Your task to perform on an android device: star an email in the gmail app Image 0: 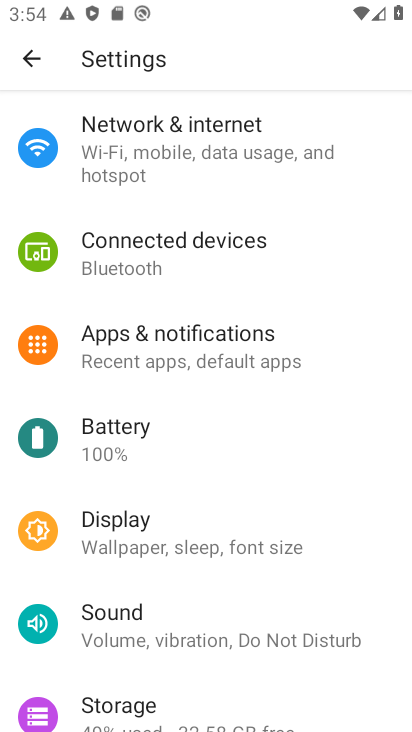
Step 0: press home button
Your task to perform on an android device: star an email in the gmail app Image 1: 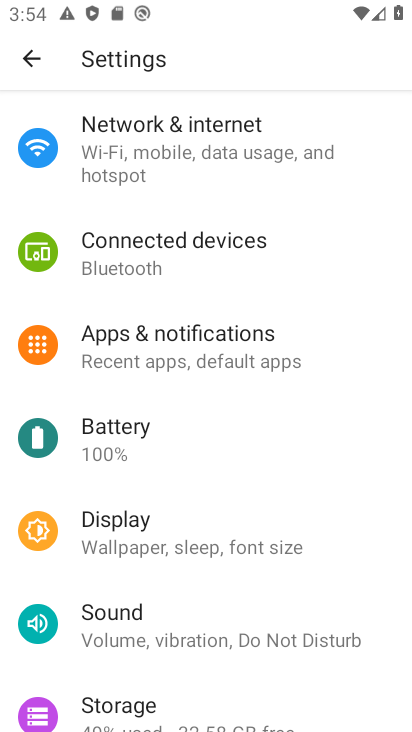
Step 1: press home button
Your task to perform on an android device: star an email in the gmail app Image 2: 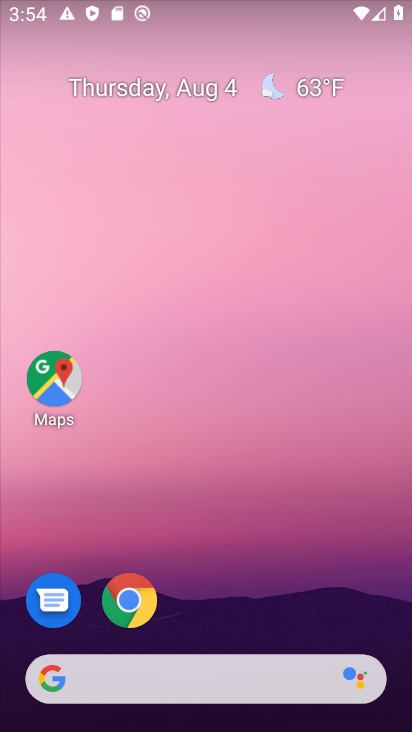
Step 2: drag from (320, 597) to (259, 44)
Your task to perform on an android device: star an email in the gmail app Image 3: 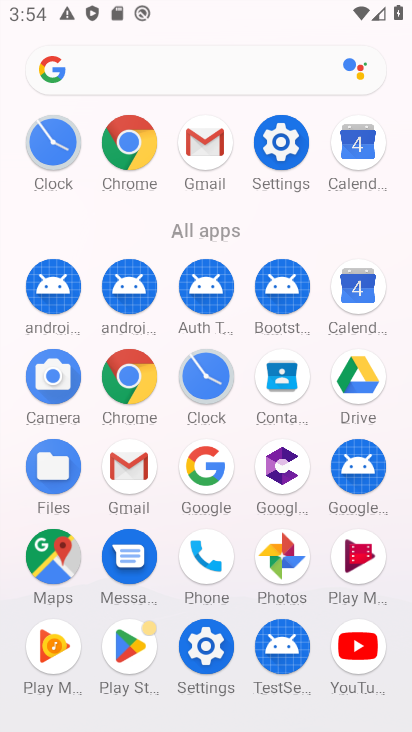
Step 3: click (196, 132)
Your task to perform on an android device: star an email in the gmail app Image 4: 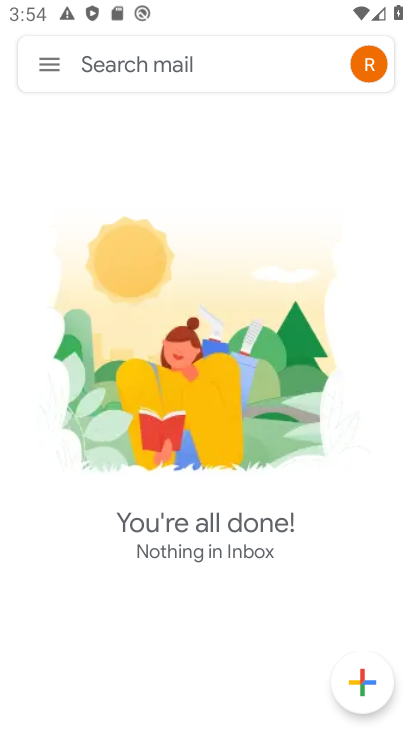
Step 4: click (49, 53)
Your task to perform on an android device: star an email in the gmail app Image 5: 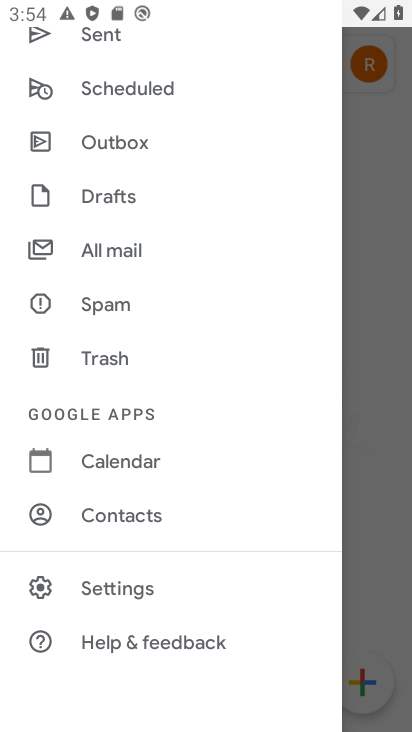
Step 5: click (117, 590)
Your task to perform on an android device: star an email in the gmail app Image 6: 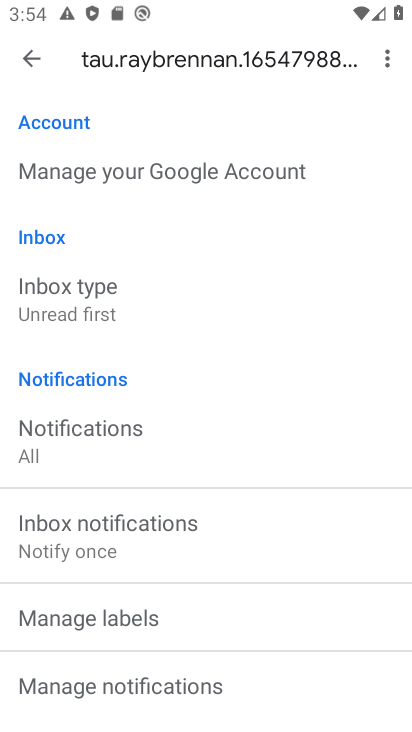
Step 6: click (28, 71)
Your task to perform on an android device: star an email in the gmail app Image 7: 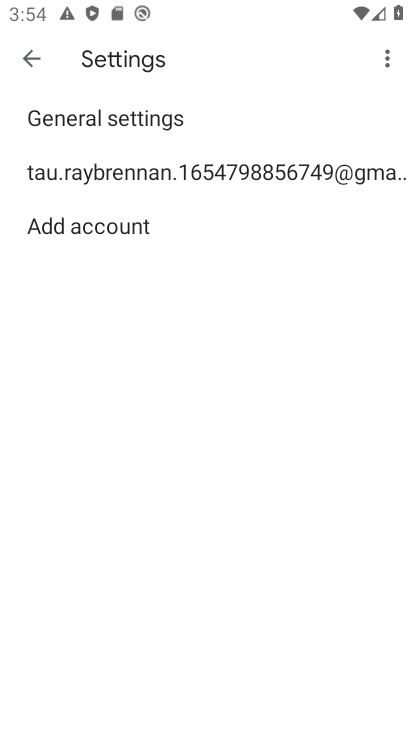
Step 7: click (28, 70)
Your task to perform on an android device: star an email in the gmail app Image 8: 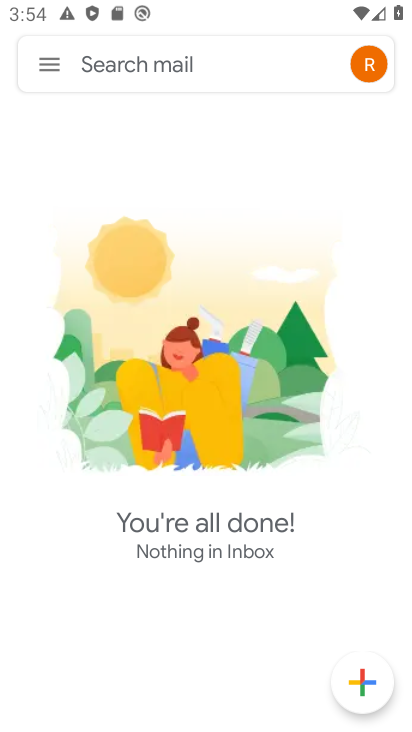
Step 8: click (30, 69)
Your task to perform on an android device: star an email in the gmail app Image 9: 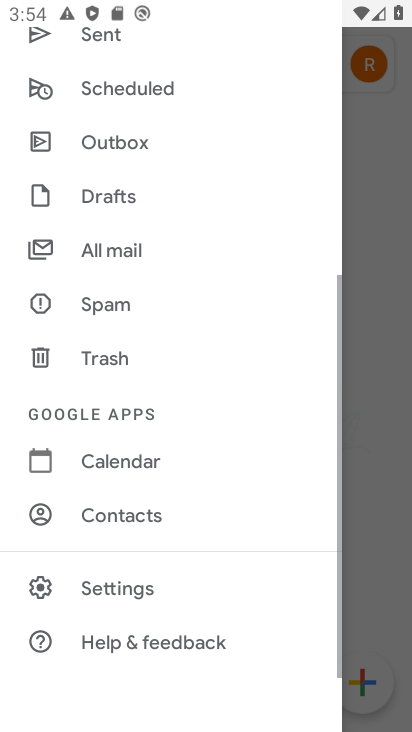
Step 9: drag from (159, 138) to (202, 591)
Your task to perform on an android device: star an email in the gmail app Image 10: 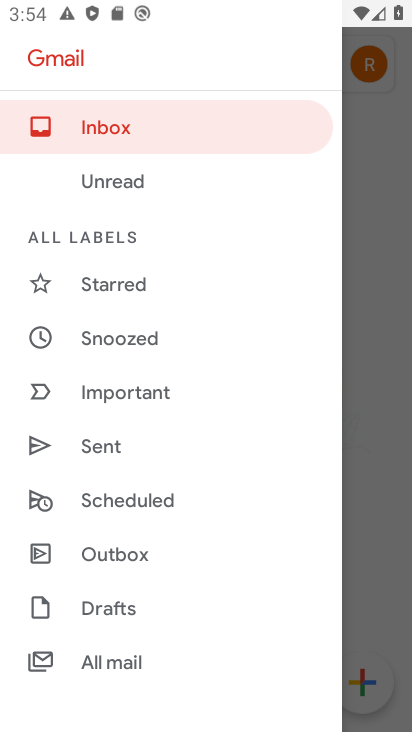
Step 10: click (129, 273)
Your task to perform on an android device: star an email in the gmail app Image 11: 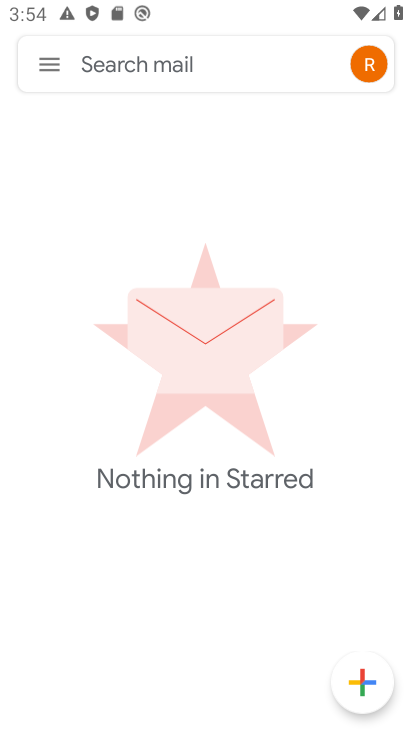
Step 11: click (61, 64)
Your task to perform on an android device: star an email in the gmail app Image 12: 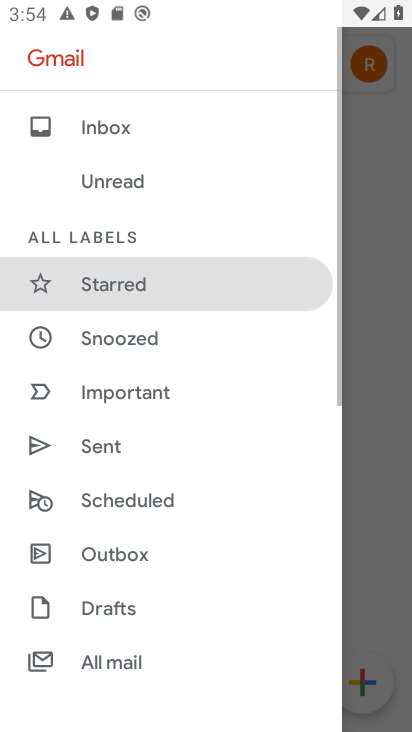
Step 12: drag from (181, 637) to (231, 240)
Your task to perform on an android device: star an email in the gmail app Image 13: 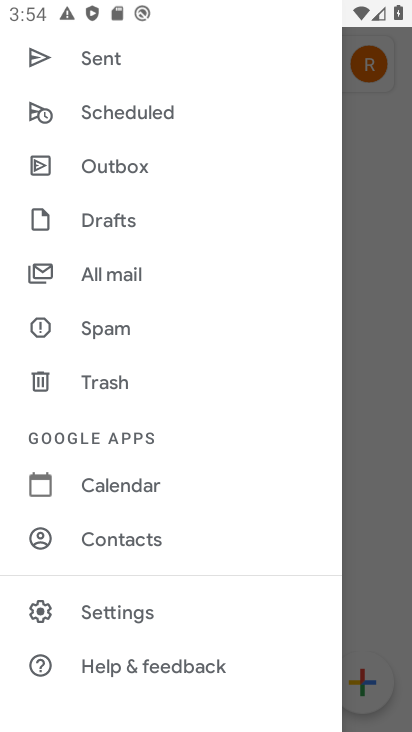
Step 13: click (129, 266)
Your task to perform on an android device: star an email in the gmail app Image 14: 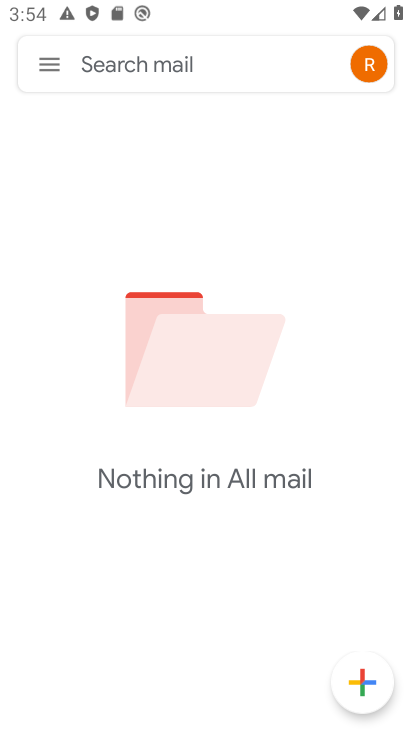
Step 14: task complete